Your task to perform on an android device: set the timer Image 0: 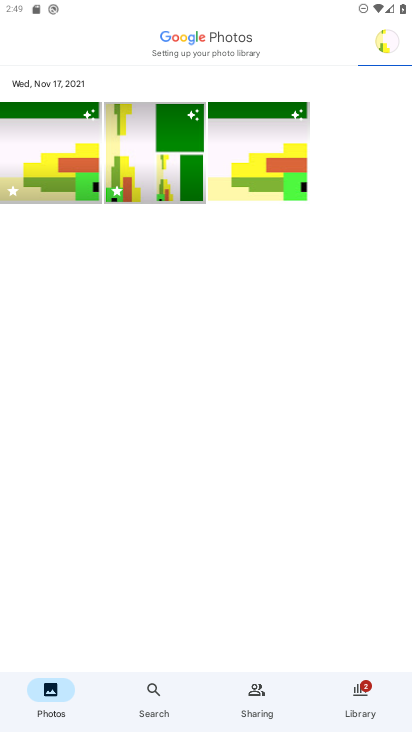
Step 0: press home button
Your task to perform on an android device: set the timer Image 1: 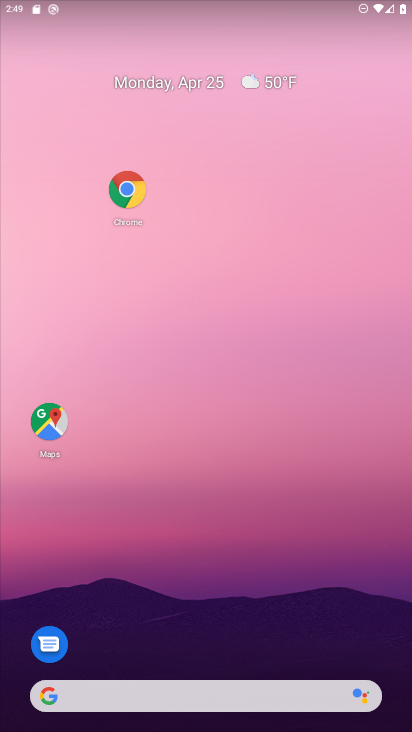
Step 1: drag from (100, 655) to (122, 91)
Your task to perform on an android device: set the timer Image 2: 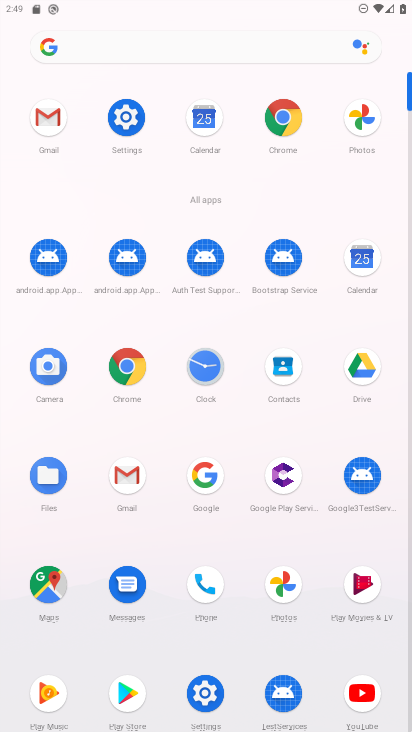
Step 2: click (215, 376)
Your task to perform on an android device: set the timer Image 3: 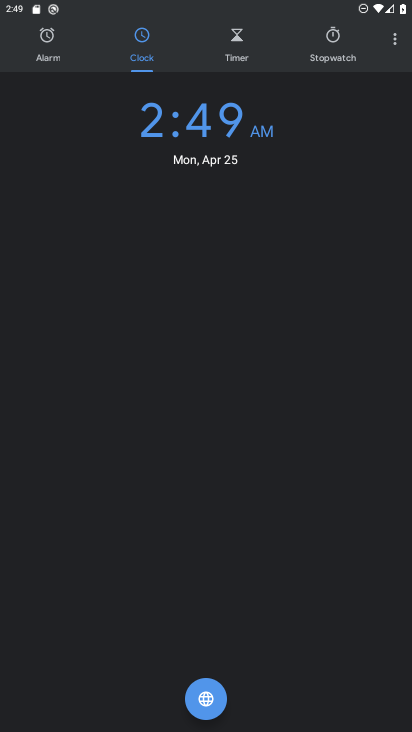
Step 3: click (230, 57)
Your task to perform on an android device: set the timer Image 4: 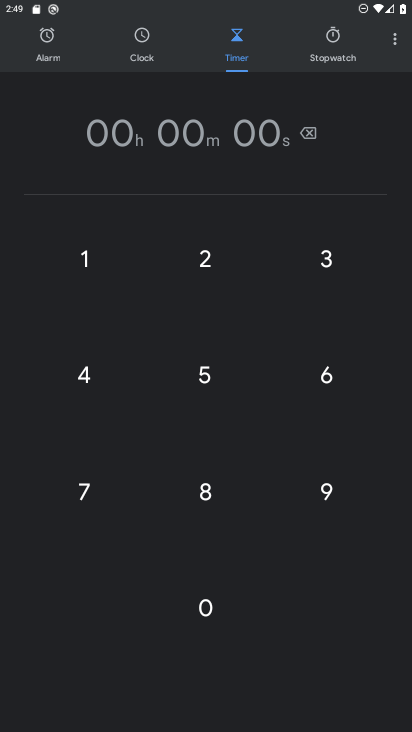
Step 4: click (199, 276)
Your task to perform on an android device: set the timer Image 5: 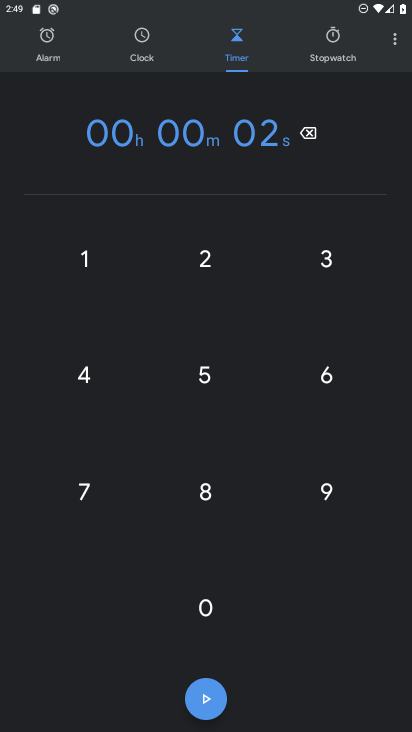
Step 5: click (317, 248)
Your task to perform on an android device: set the timer Image 6: 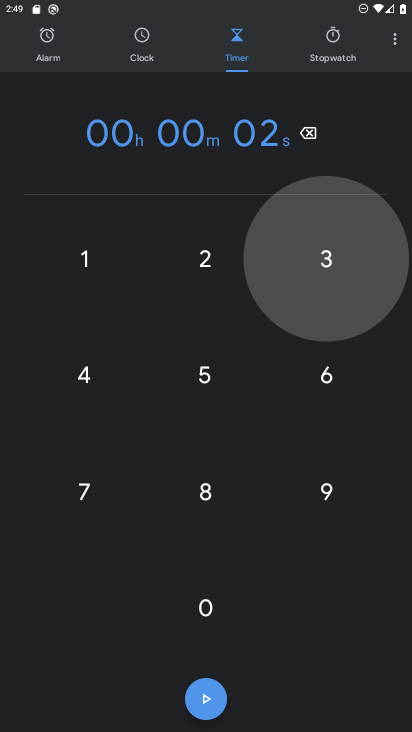
Step 6: click (223, 345)
Your task to perform on an android device: set the timer Image 7: 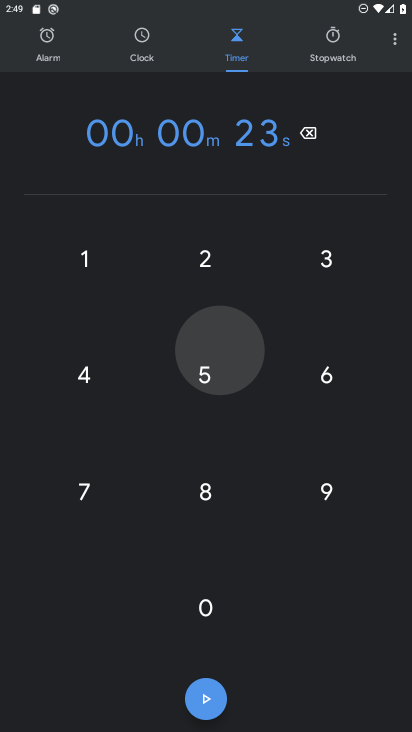
Step 7: click (349, 367)
Your task to perform on an android device: set the timer Image 8: 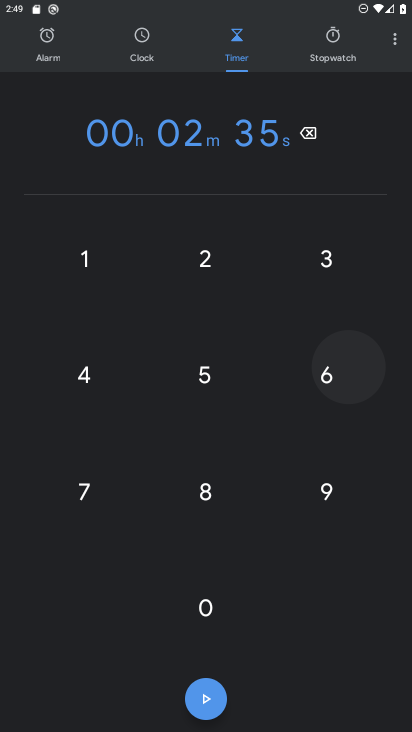
Step 8: click (208, 463)
Your task to perform on an android device: set the timer Image 9: 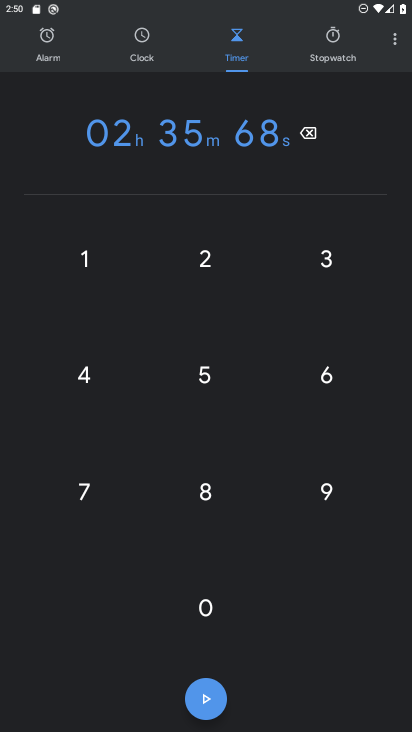
Step 9: task complete